Your task to perform on an android device: turn off sleep mode Image 0: 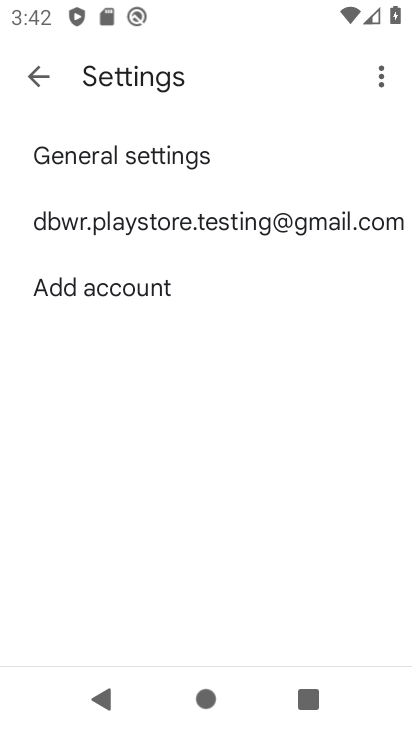
Step 0: press home button
Your task to perform on an android device: turn off sleep mode Image 1: 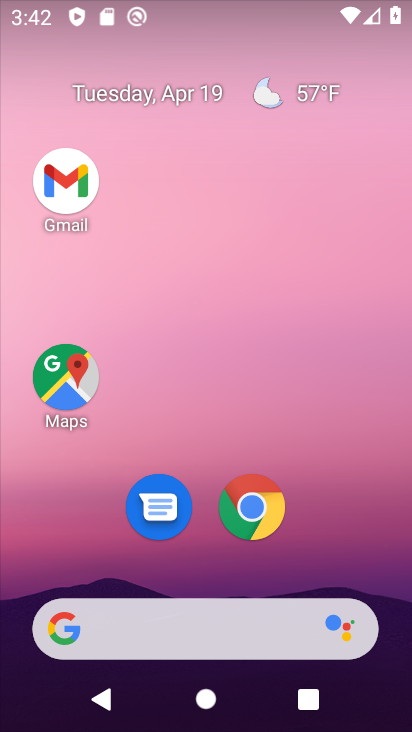
Step 1: drag from (213, 520) to (280, 108)
Your task to perform on an android device: turn off sleep mode Image 2: 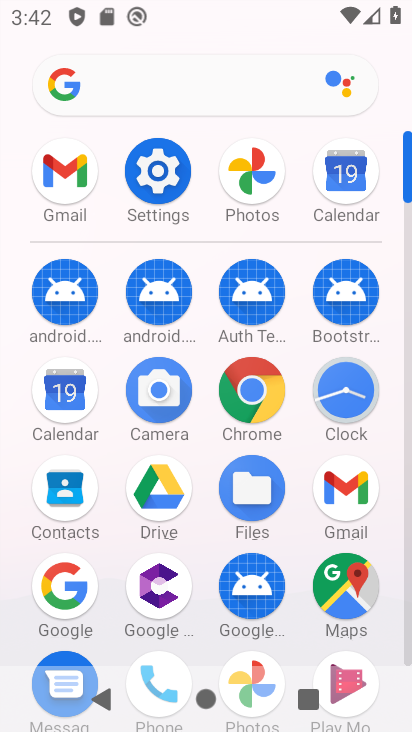
Step 2: click (152, 169)
Your task to perform on an android device: turn off sleep mode Image 3: 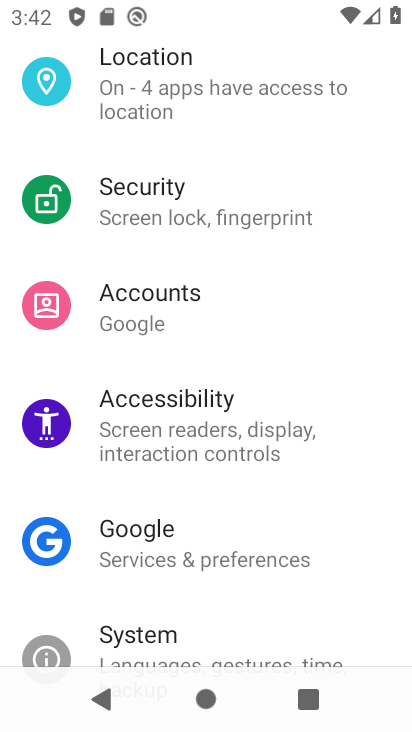
Step 3: drag from (315, 148) to (226, 611)
Your task to perform on an android device: turn off sleep mode Image 4: 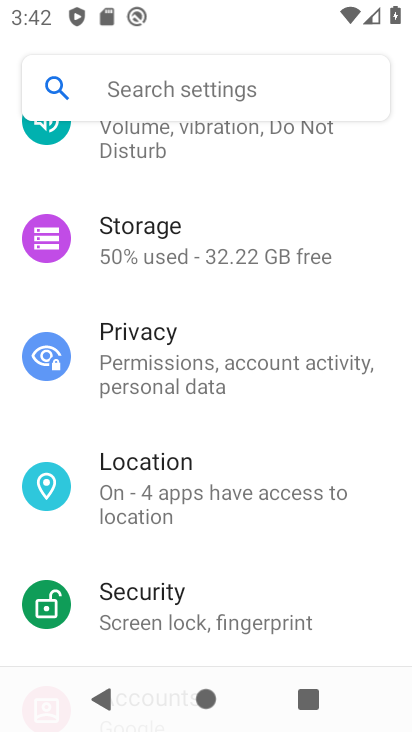
Step 4: drag from (233, 187) to (178, 498)
Your task to perform on an android device: turn off sleep mode Image 5: 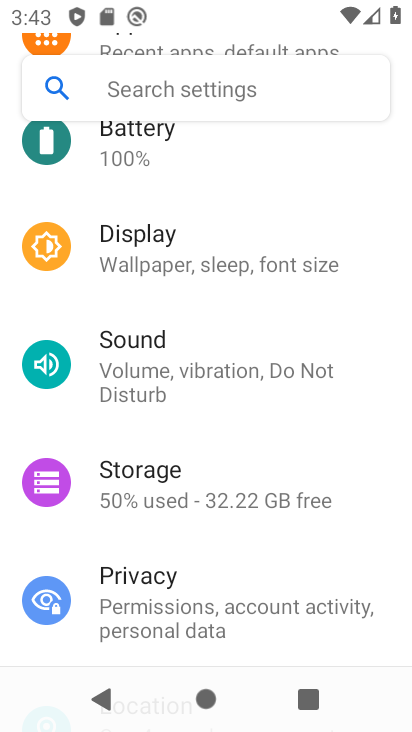
Step 5: click (248, 269)
Your task to perform on an android device: turn off sleep mode Image 6: 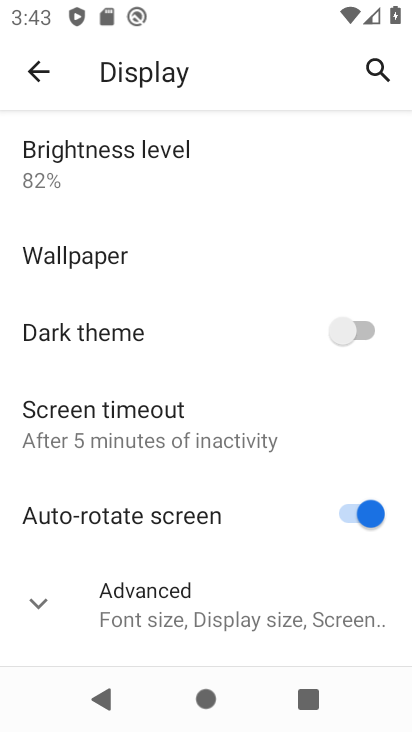
Step 6: drag from (226, 550) to (241, 368)
Your task to perform on an android device: turn off sleep mode Image 7: 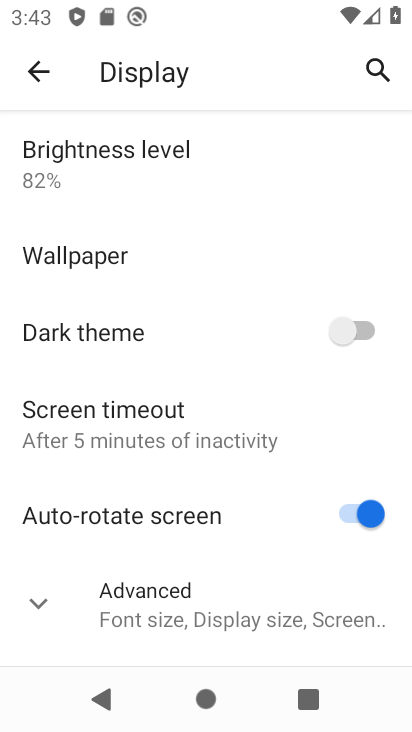
Step 7: drag from (238, 531) to (300, 263)
Your task to perform on an android device: turn off sleep mode Image 8: 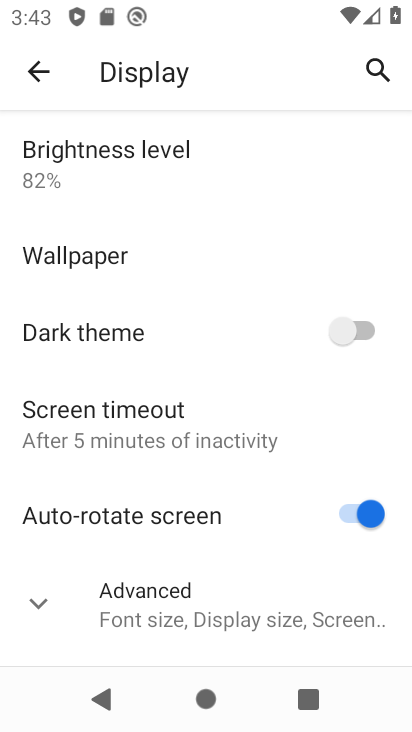
Step 8: click (147, 595)
Your task to perform on an android device: turn off sleep mode Image 9: 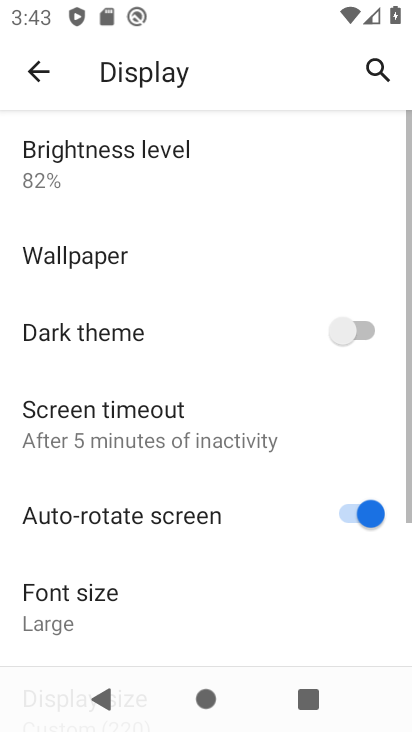
Step 9: drag from (147, 595) to (224, 178)
Your task to perform on an android device: turn off sleep mode Image 10: 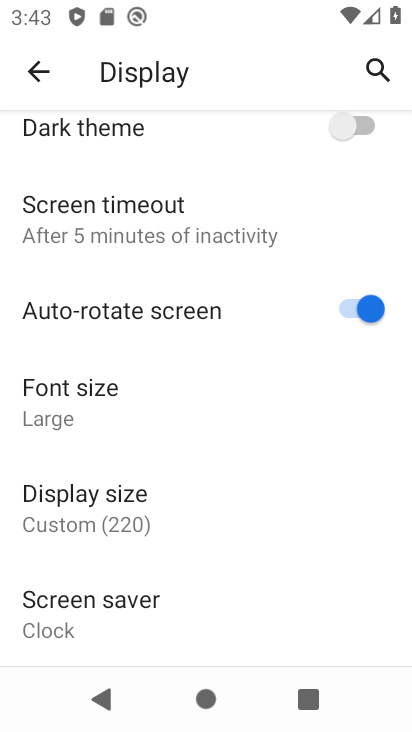
Step 10: click (256, 218)
Your task to perform on an android device: turn off sleep mode Image 11: 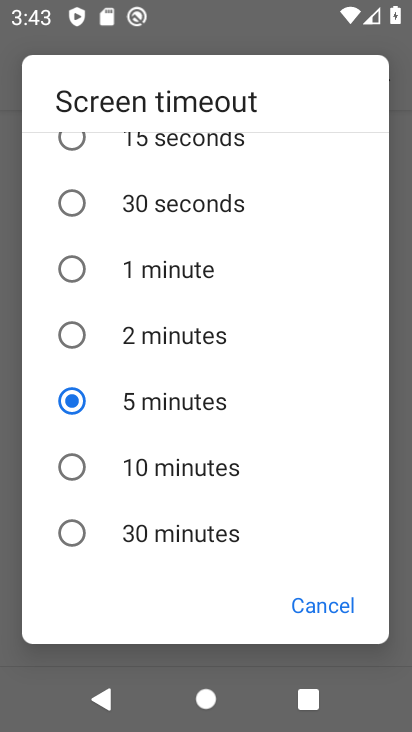
Step 11: task complete